Your task to perform on an android device: open chrome privacy settings Image 0: 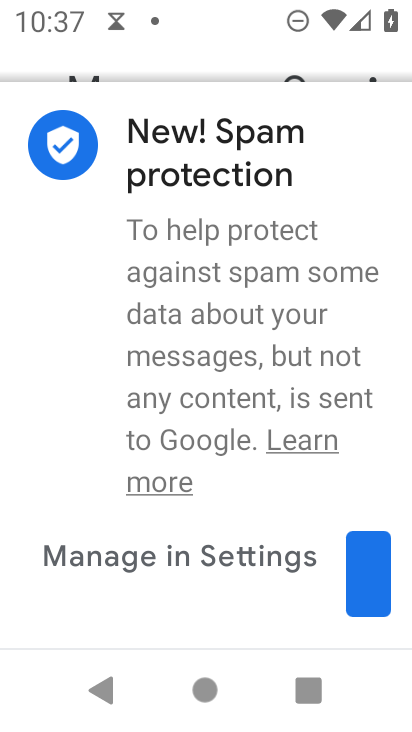
Step 0: press home button
Your task to perform on an android device: open chrome privacy settings Image 1: 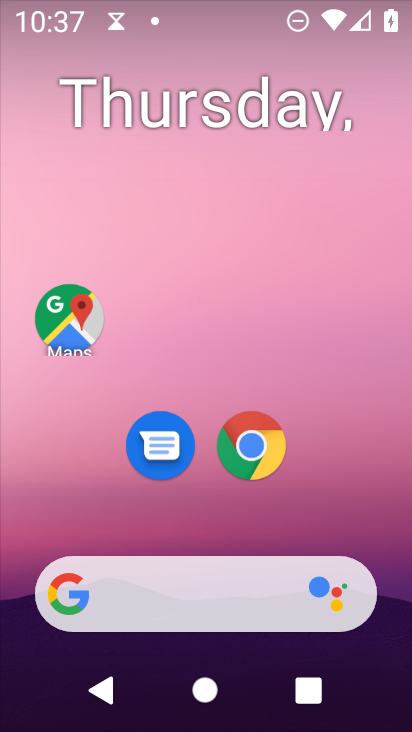
Step 1: click (245, 446)
Your task to perform on an android device: open chrome privacy settings Image 2: 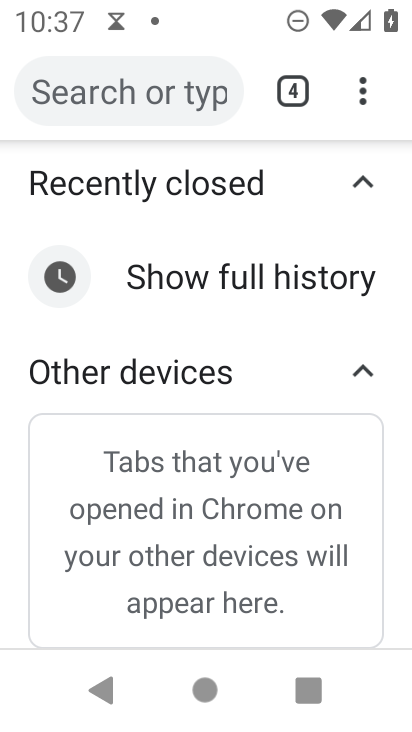
Step 2: click (361, 100)
Your task to perform on an android device: open chrome privacy settings Image 3: 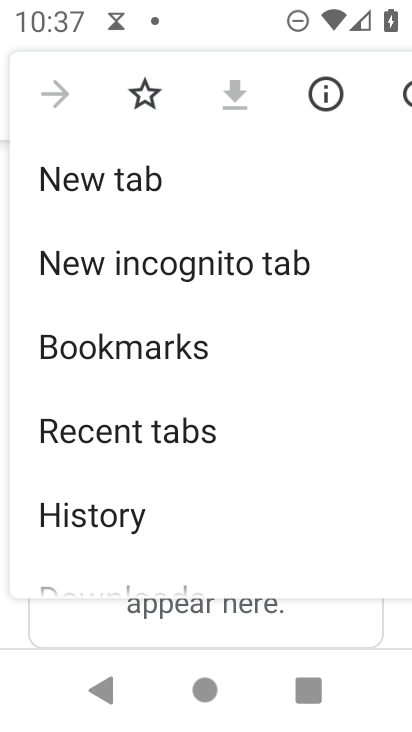
Step 3: drag from (214, 536) to (227, 127)
Your task to perform on an android device: open chrome privacy settings Image 4: 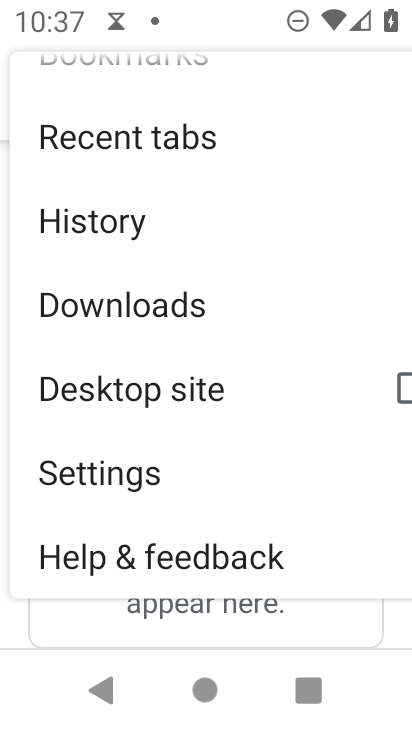
Step 4: click (115, 470)
Your task to perform on an android device: open chrome privacy settings Image 5: 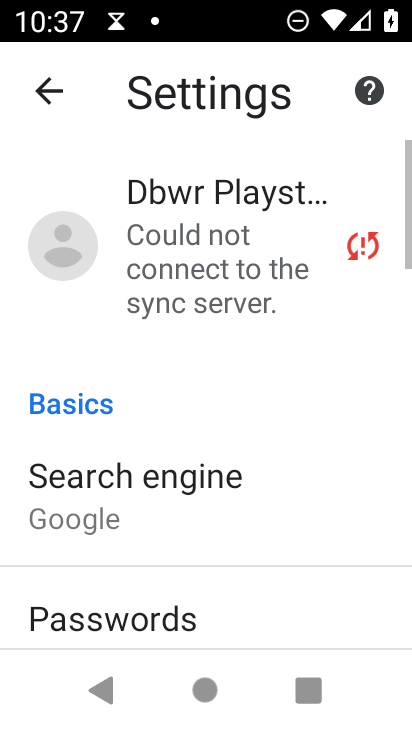
Step 5: drag from (220, 624) to (224, 83)
Your task to perform on an android device: open chrome privacy settings Image 6: 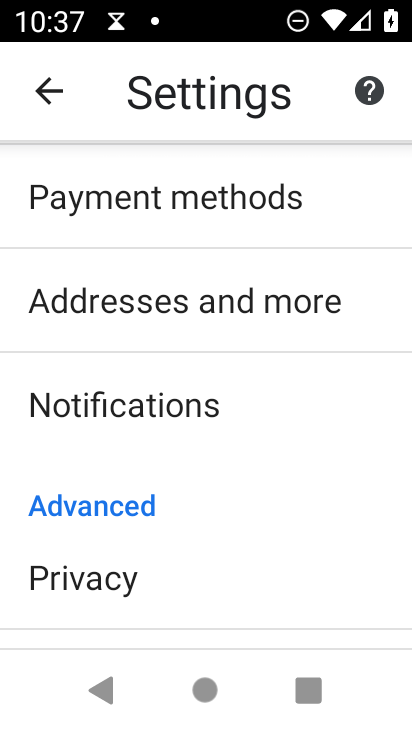
Step 6: click (151, 586)
Your task to perform on an android device: open chrome privacy settings Image 7: 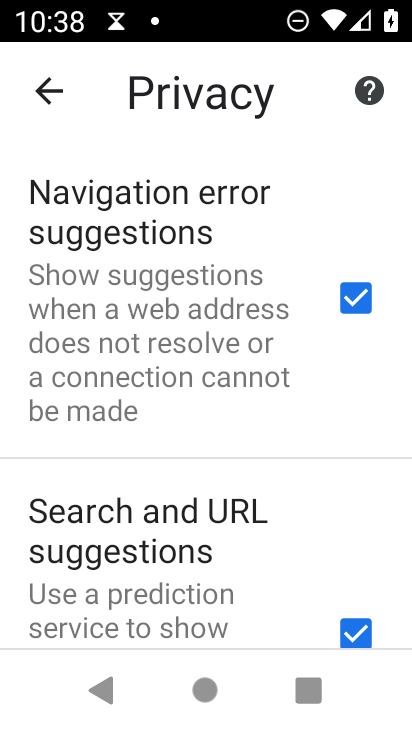
Step 7: task complete